Your task to perform on an android device: turn on data saver in the chrome app Image 0: 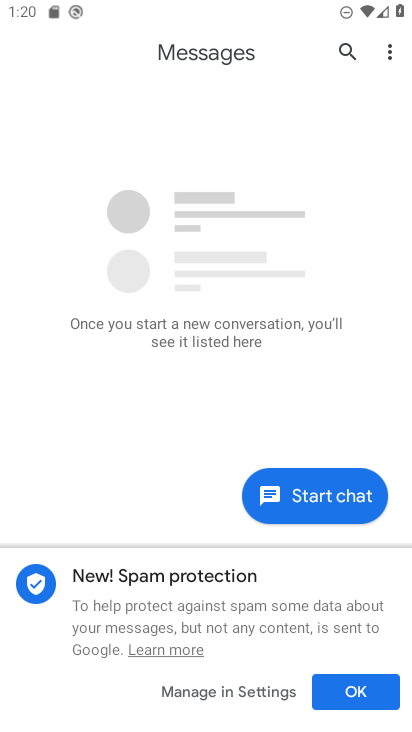
Step 0: press back button
Your task to perform on an android device: turn on data saver in the chrome app Image 1: 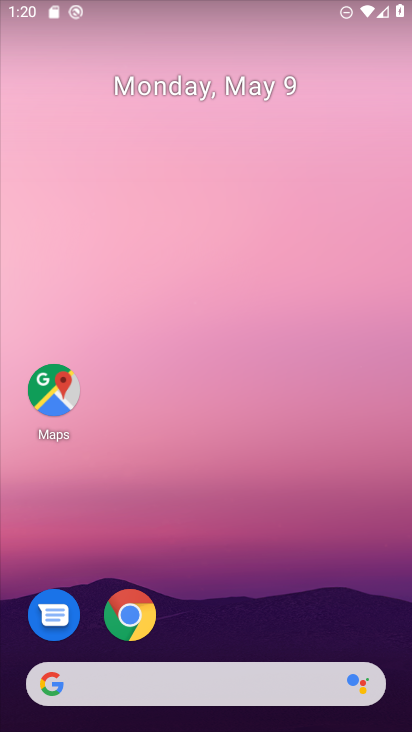
Step 1: click (130, 614)
Your task to perform on an android device: turn on data saver in the chrome app Image 2: 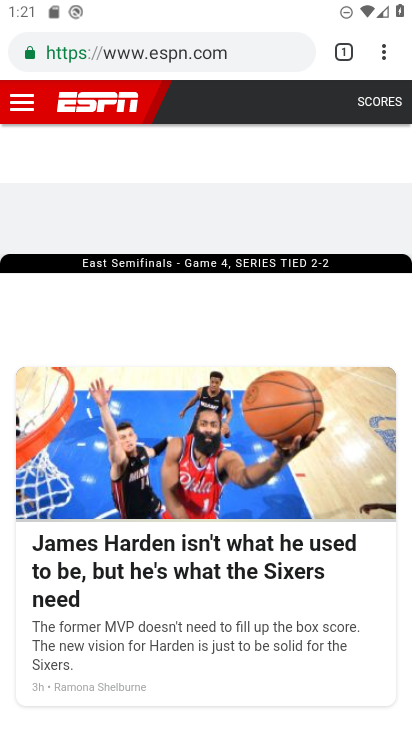
Step 2: click (382, 51)
Your task to perform on an android device: turn on data saver in the chrome app Image 3: 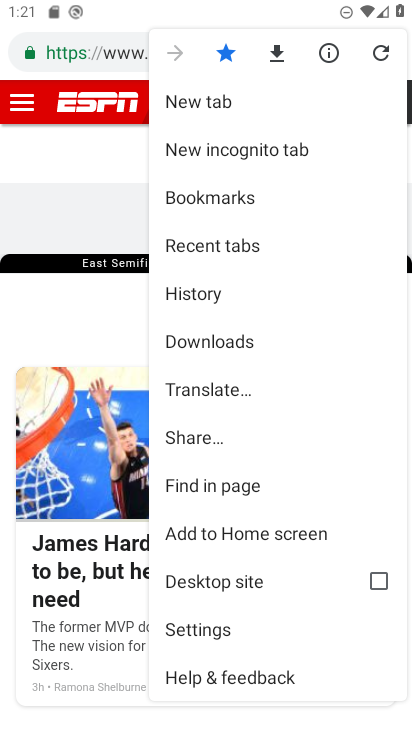
Step 3: click (181, 630)
Your task to perform on an android device: turn on data saver in the chrome app Image 4: 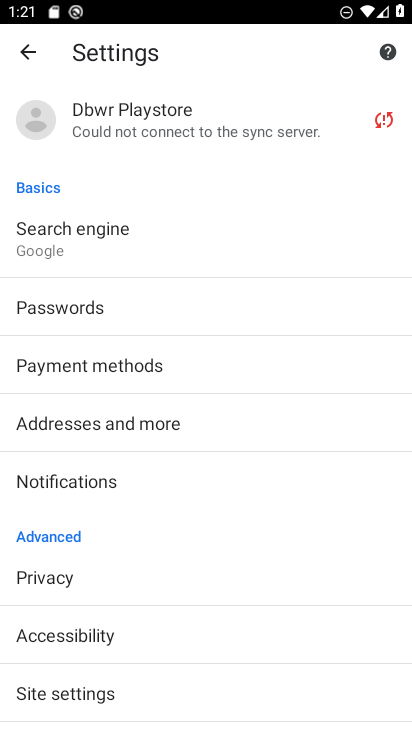
Step 4: drag from (137, 622) to (181, 418)
Your task to perform on an android device: turn on data saver in the chrome app Image 5: 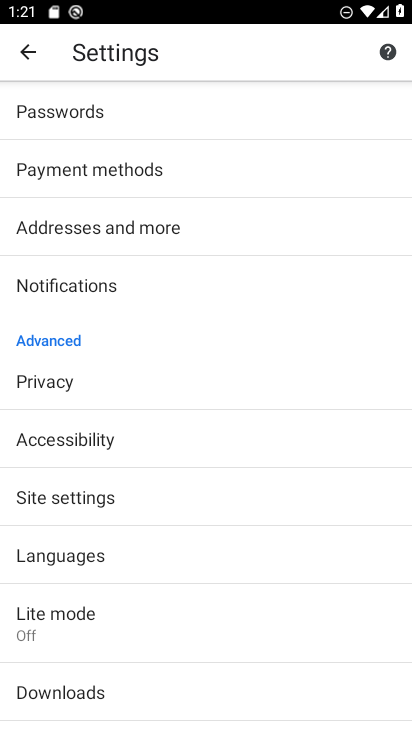
Step 5: drag from (186, 584) to (243, 475)
Your task to perform on an android device: turn on data saver in the chrome app Image 6: 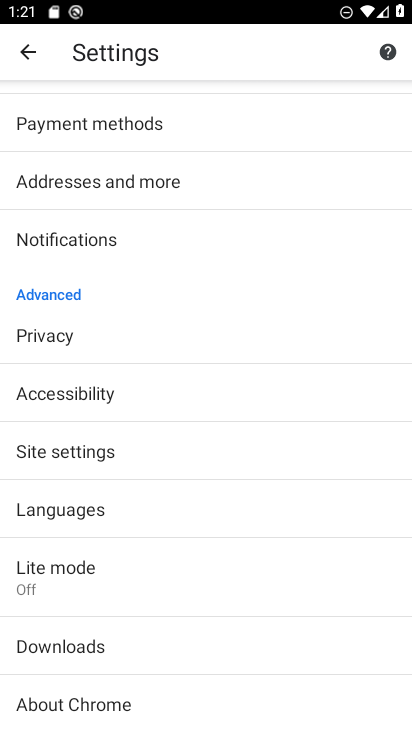
Step 6: click (87, 568)
Your task to perform on an android device: turn on data saver in the chrome app Image 7: 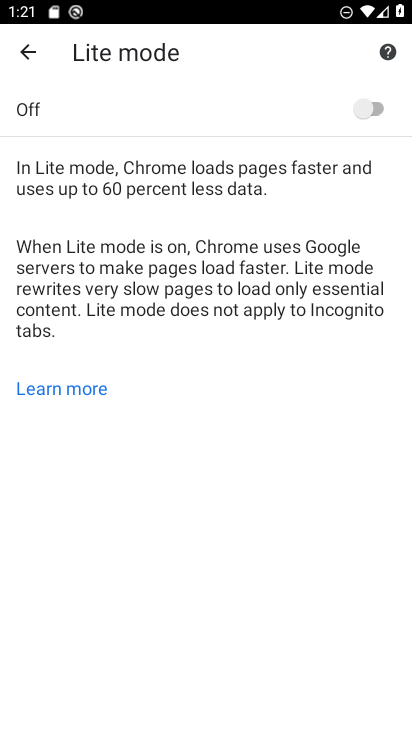
Step 7: click (361, 110)
Your task to perform on an android device: turn on data saver in the chrome app Image 8: 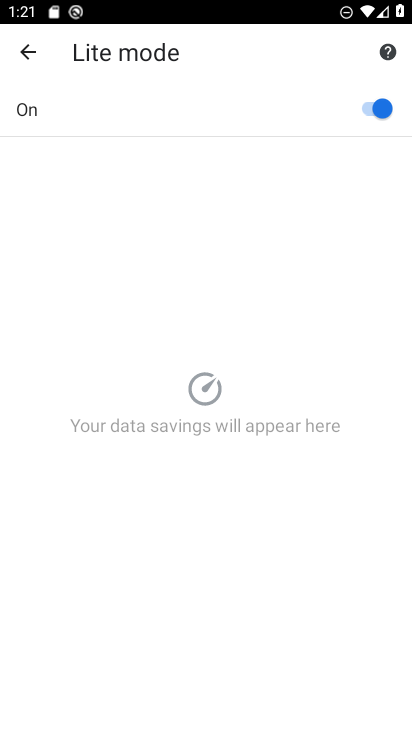
Step 8: task complete